Your task to perform on an android device: Open CNN.com Image 0: 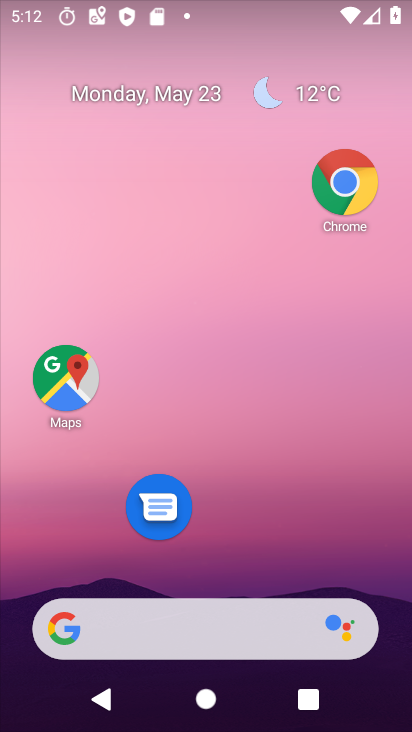
Step 0: click (148, 643)
Your task to perform on an android device: Open CNN.com Image 1: 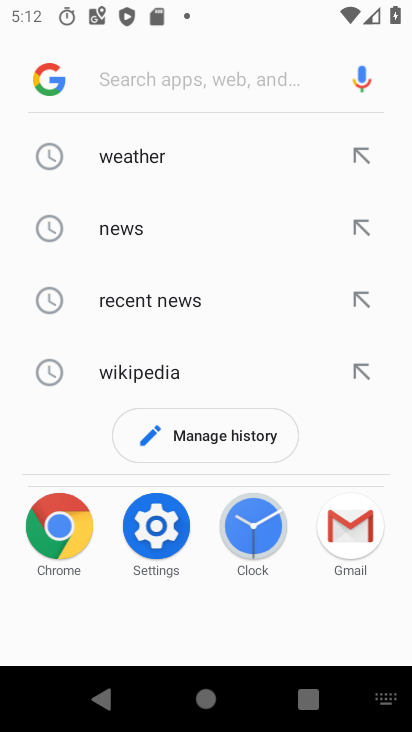
Step 1: type "cnn"
Your task to perform on an android device: Open CNN.com Image 2: 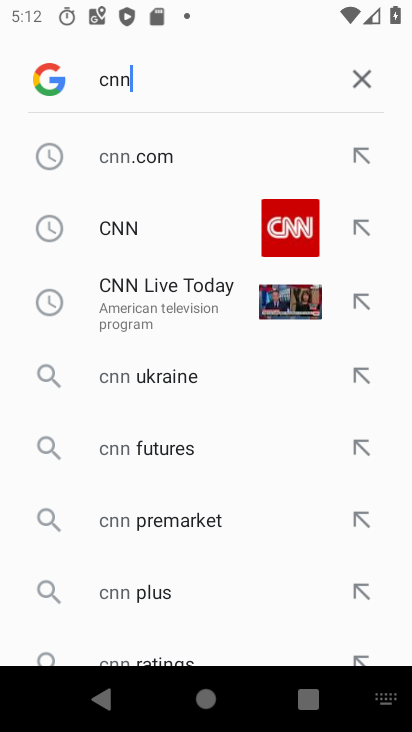
Step 2: click (211, 173)
Your task to perform on an android device: Open CNN.com Image 3: 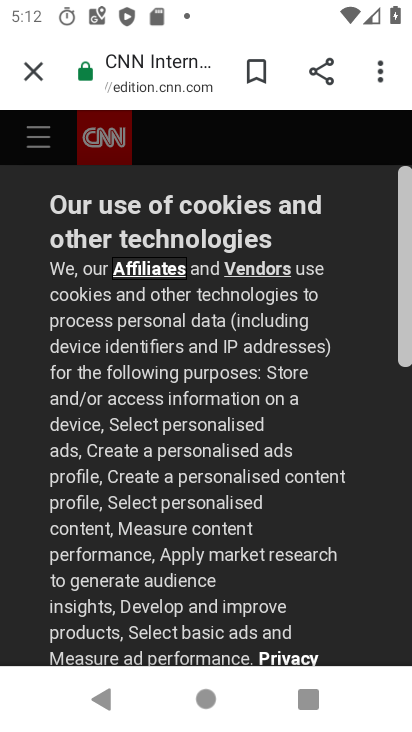
Step 3: task complete